Your task to perform on an android device: uninstall "Pluto TV - Live TV and Movies" Image 0: 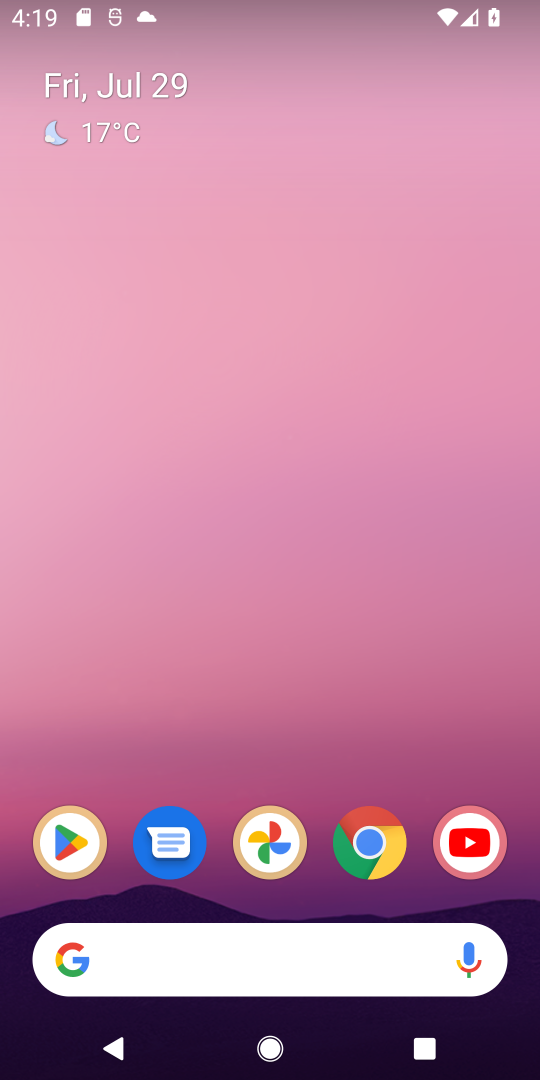
Step 0: click (58, 839)
Your task to perform on an android device: uninstall "Pluto TV - Live TV and Movies" Image 1: 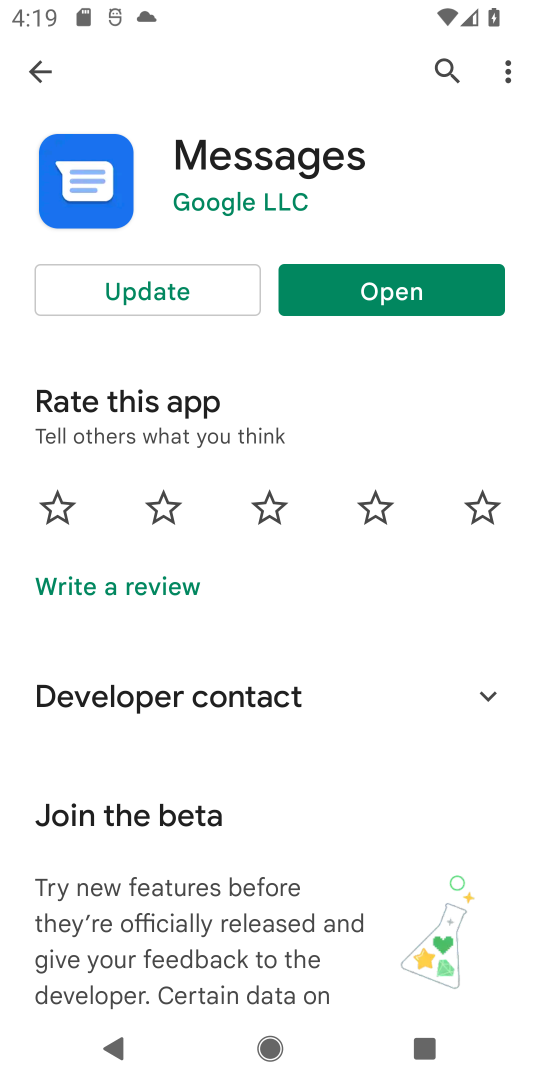
Step 1: click (449, 54)
Your task to perform on an android device: uninstall "Pluto TV - Live TV and Movies" Image 2: 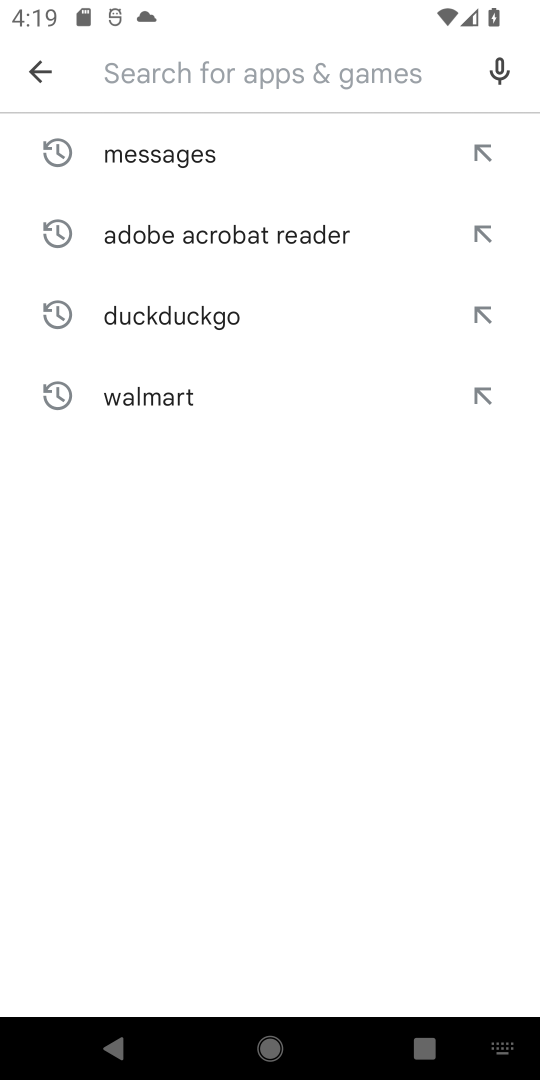
Step 2: click (215, 58)
Your task to perform on an android device: uninstall "Pluto TV - Live TV and Movies" Image 3: 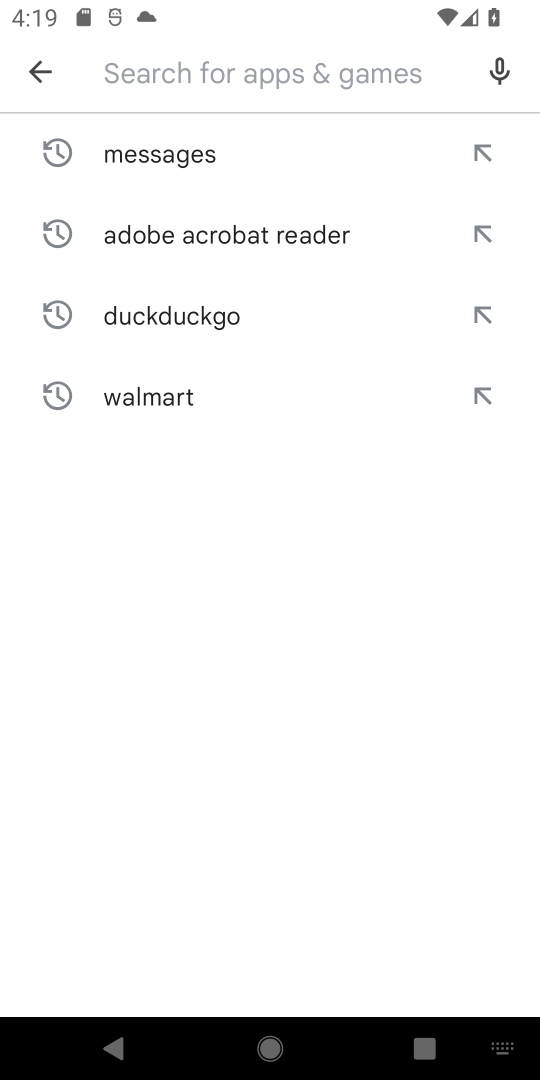
Step 3: type "pluto"
Your task to perform on an android device: uninstall "Pluto TV - Live TV and Movies" Image 4: 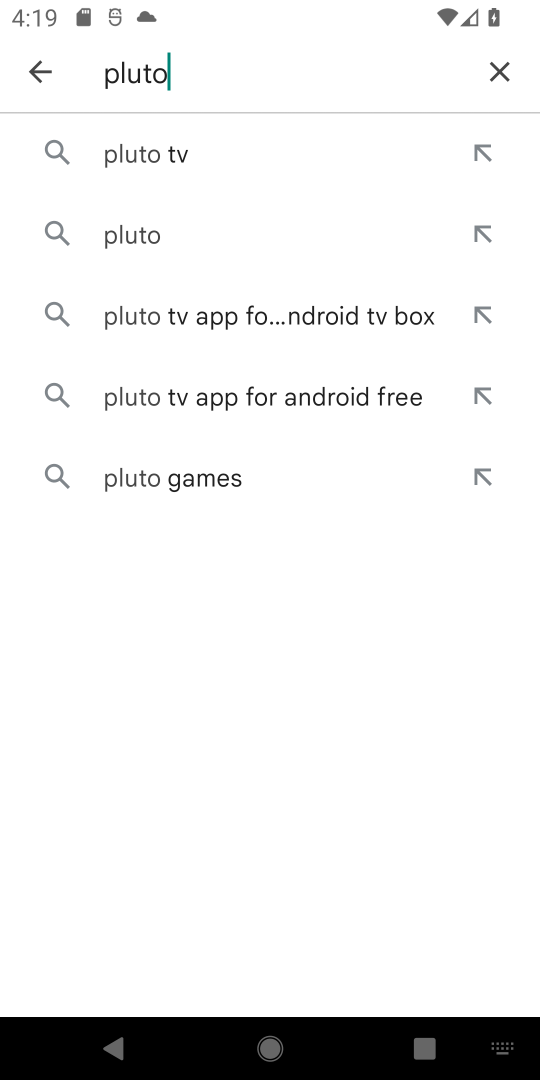
Step 4: click (204, 146)
Your task to perform on an android device: uninstall "Pluto TV - Live TV and Movies" Image 5: 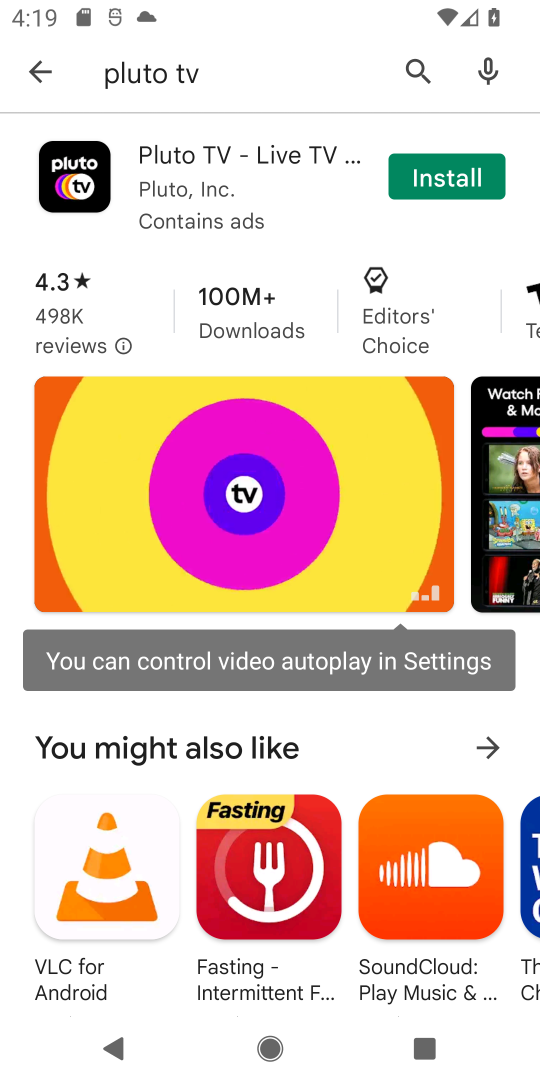
Step 5: click (173, 182)
Your task to perform on an android device: uninstall "Pluto TV - Live TV and Movies" Image 6: 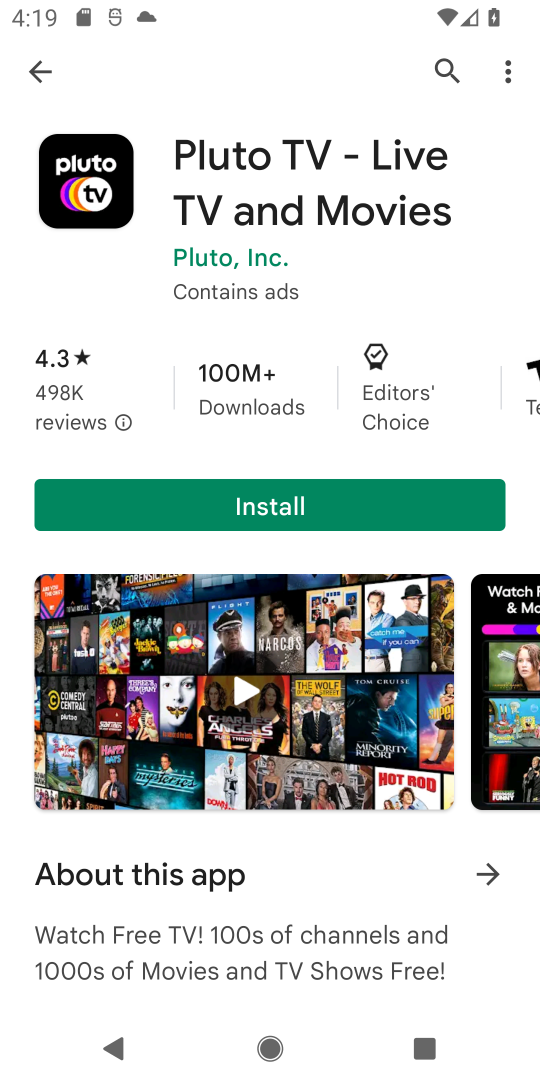
Step 6: task complete